Your task to perform on an android device: Check the news Image 0: 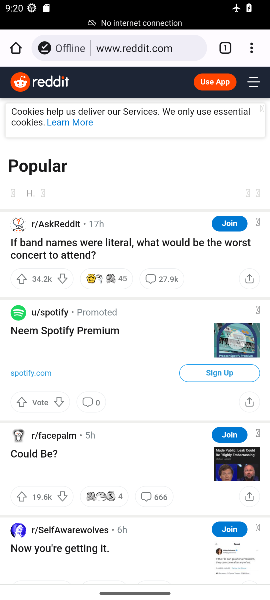
Step 0: press home button
Your task to perform on an android device: Check the news Image 1: 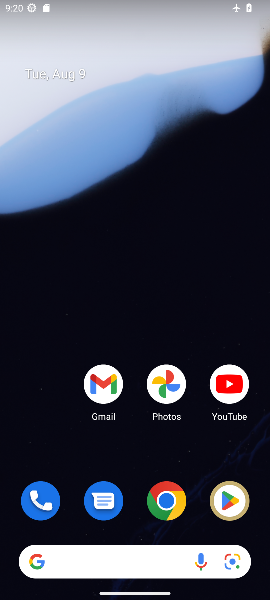
Step 1: click (118, 562)
Your task to perform on an android device: Check the news Image 2: 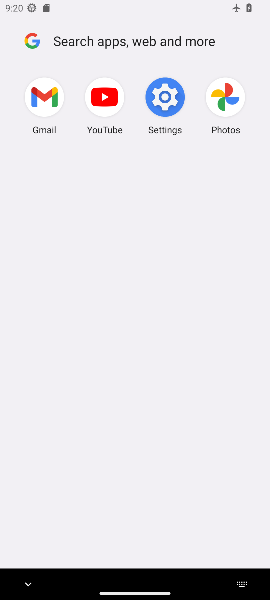
Step 2: type "news"
Your task to perform on an android device: Check the news Image 3: 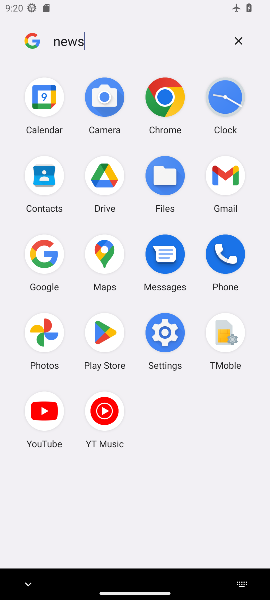
Step 3: click (38, 267)
Your task to perform on an android device: Check the news Image 4: 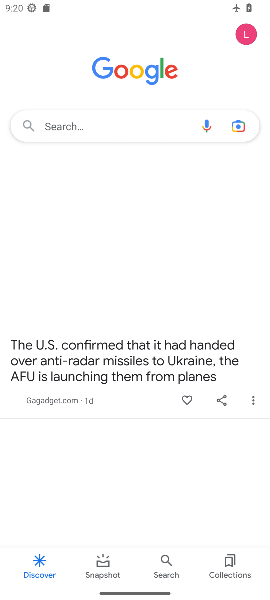
Step 4: task complete